Your task to perform on an android device: create a new album in the google photos Image 0: 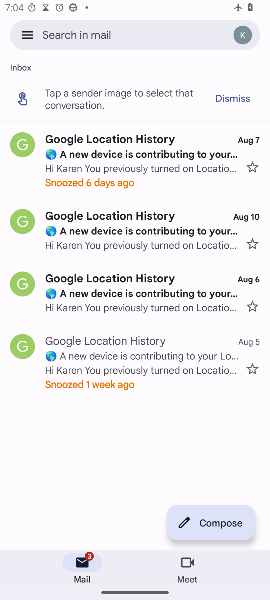
Step 0: press home button
Your task to perform on an android device: create a new album in the google photos Image 1: 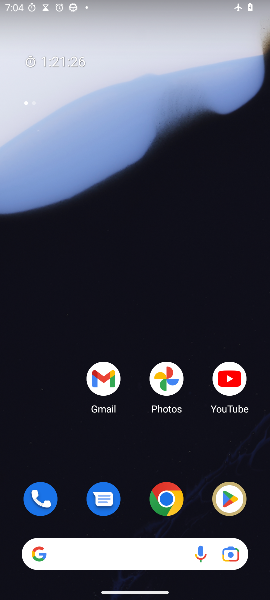
Step 1: drag from (69, 385) to (0, 0)
Your task to perform on an android device: create a new album in the google photos Image 2: 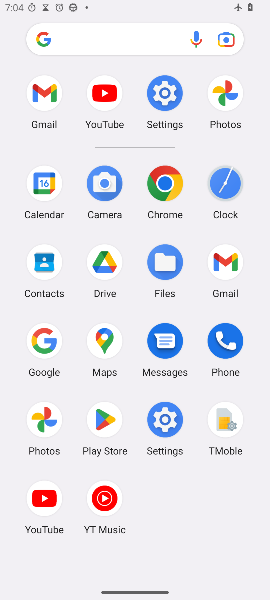
Step 2: click (51, 433)
Your task to perform on an android device: create a new album in the google photos Image 3: 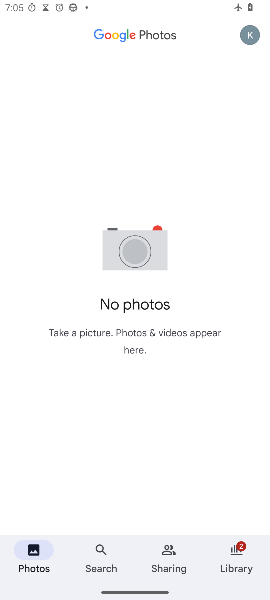
Step 3: task complete